Your task to perform on an android device: manage bookmarks in the chrome app Image 0: 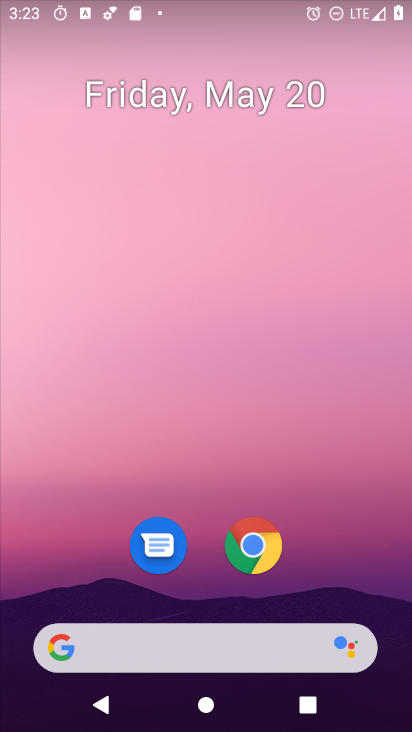
Step 0: drag from (276, 617) to (305, 9)
Your task to perform on an android device: manage bookmarks in the chrome app Image 1: 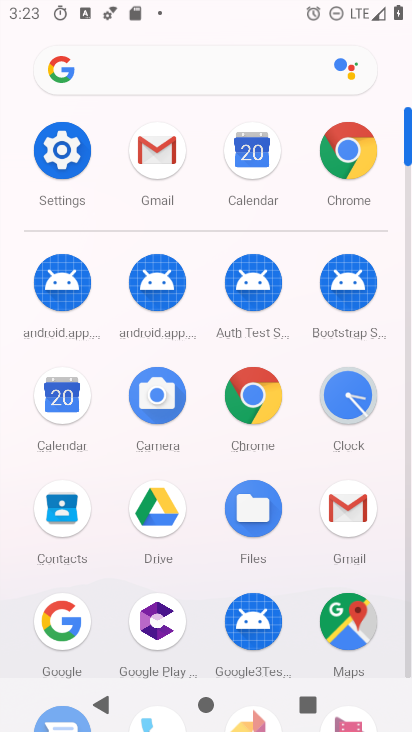
Step 1: click (266, 394)
Your task to perform on an android device: manage bookmarks in the chrome app Image 2: 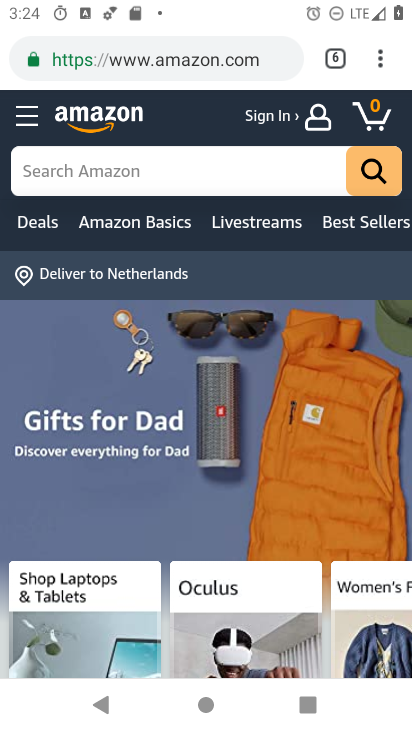
Step 2: click (372, 62)
Your task to perform on an android device: manage bookmarks in the chrome app Image 3: 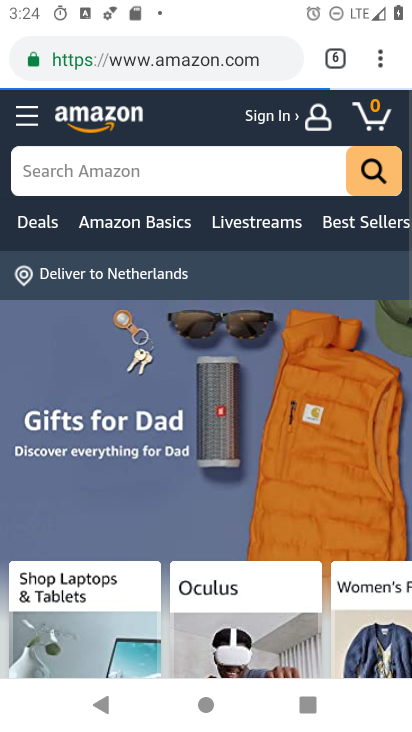
Step 3: task complete